Your task to perform on an android device: turn on location history Image 0: 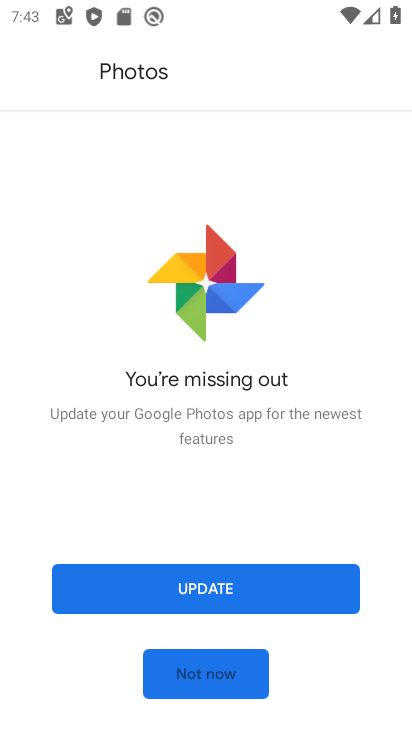
Step 0: press home button
Your task to perform on an android device: turn on location history Image 1: 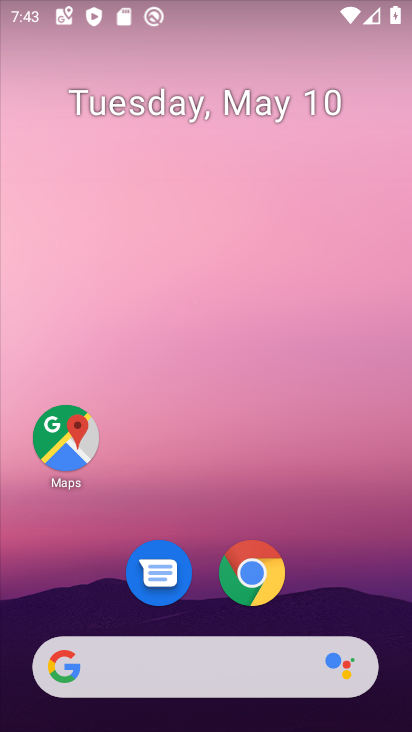
Step 1: drag from (373, 575) to (331, 44)
Your task to perform on an android device: turn on location history Image 2: 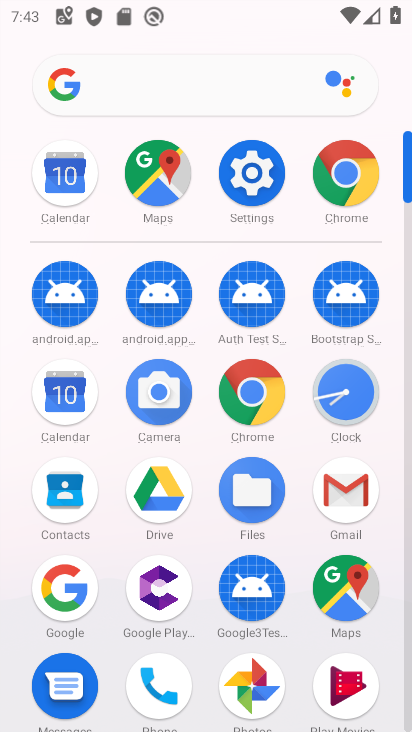
Step 2: click (247, 175)
Your task to perform on an android device: turn on location history Image 3: 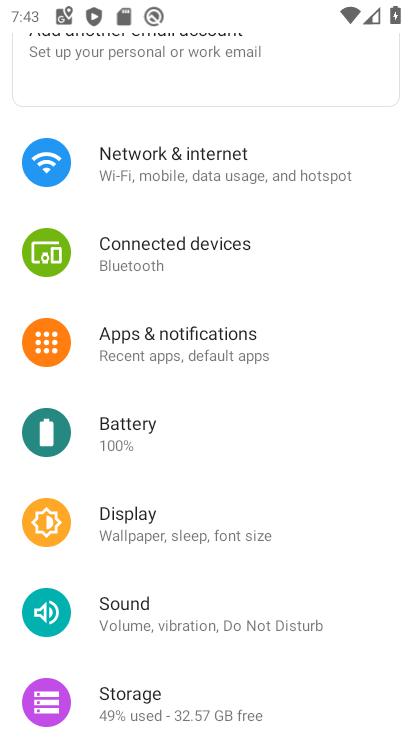
Step 3: drag from (237, 578) to (281, 239)
Your task to perform on an android device: turn on location history Image 4: 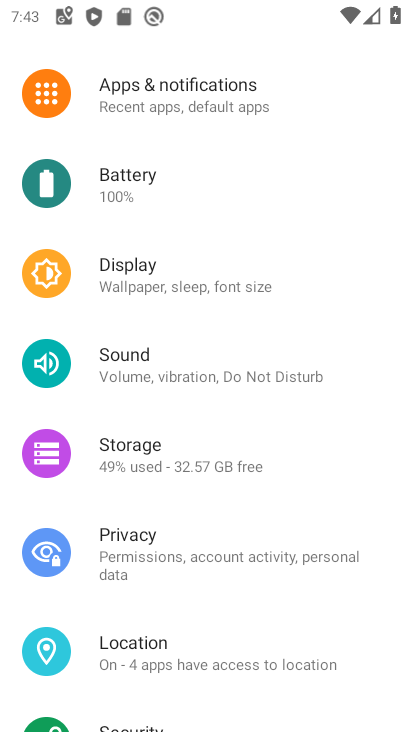
Step 4: click (207, 659)
Your task to perform on an android device: turn on location history Image 5: 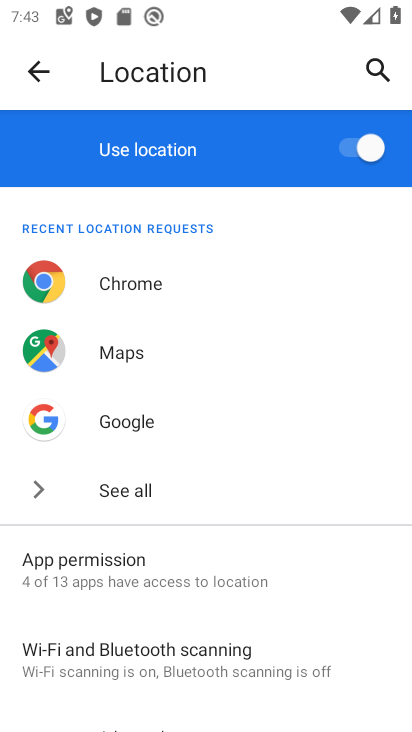
Step 5: drag from (299, 590) to (284, 367)
Your task to perform on an android device: turn on location history Image 6: 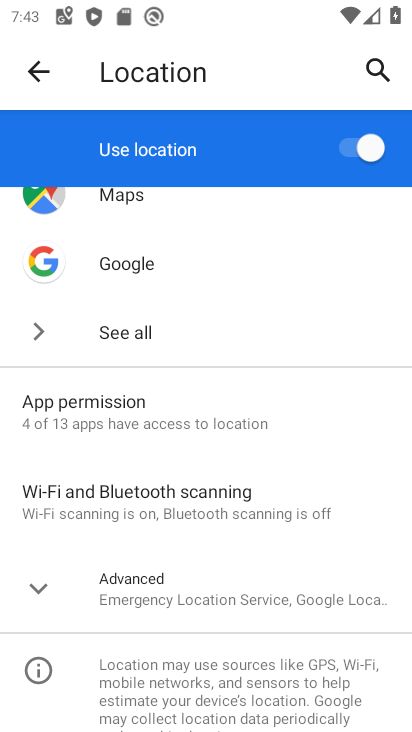
Step 6: click (210, 604)
Your task to perform on an android device: turn on location history Image 7: 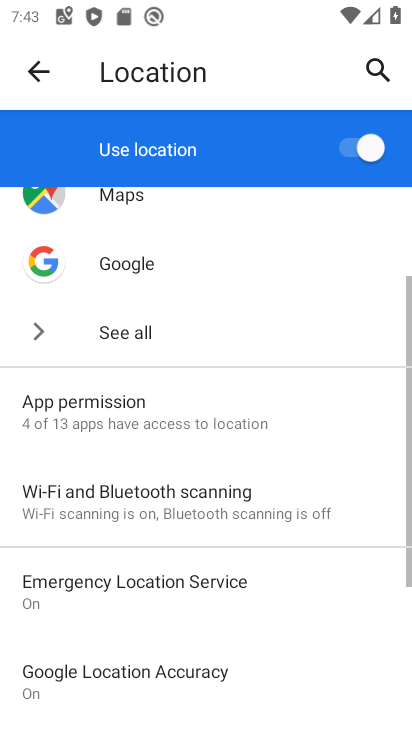
Step 7: drag from (298, 628) to (308, 332)
Your task to perform on an android device: turn on location history Image 8: 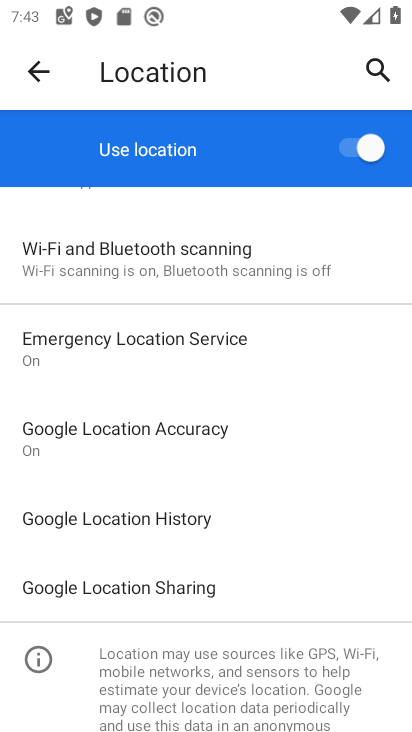
Step 8: click (179, 529)
Your task to perform on an android device: turn on location history Image 9: 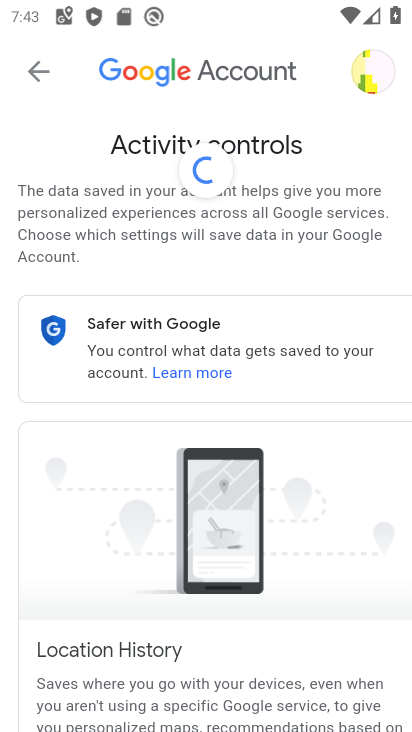
Step 9: drag from (279, 650) to (292, 269)
Your task to perform on an android device: turn on location history Image 10: 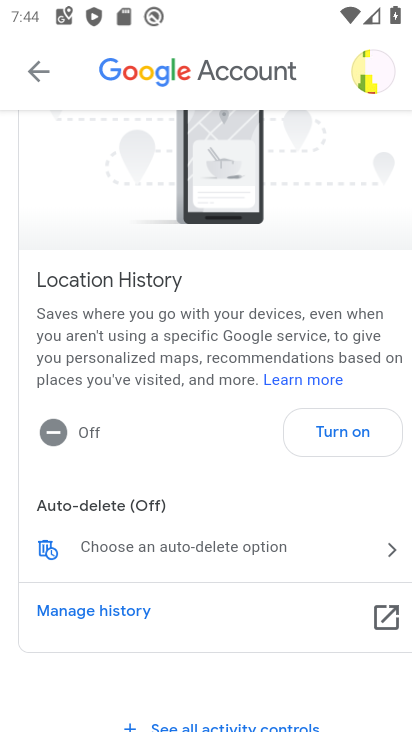
Step 10: drag from (225, 626) to (227, 357)
Your task to perform on an android device: turn on location history Image 11: 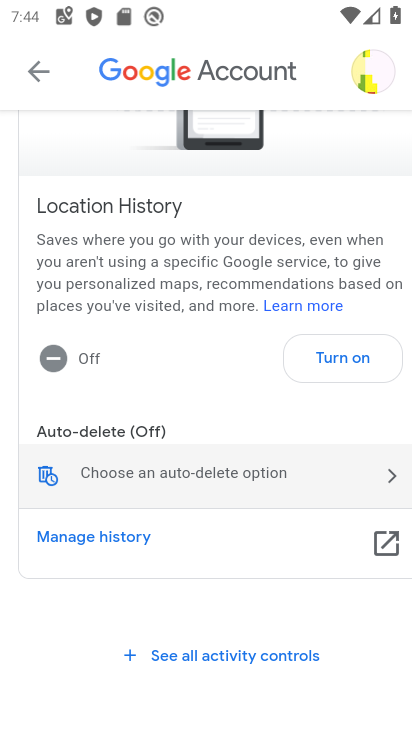
Step 11: click (331, 354)
Your task to perform on an android device: turn on location history Image 12: 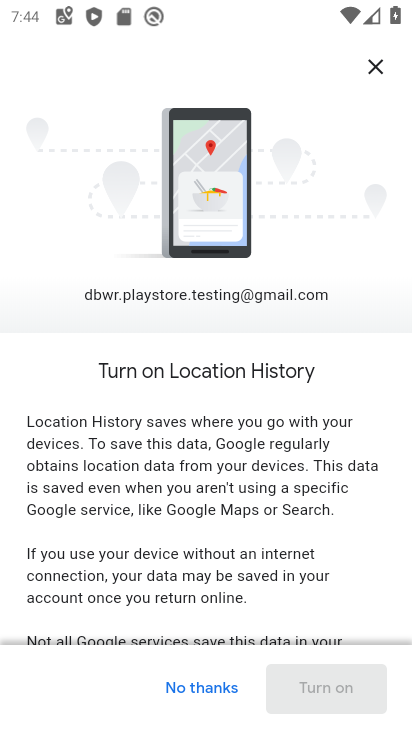
Step 12: drag from (240, 572) to (286, 244)
Your task to perform on an android device: turn on location history Image 13: 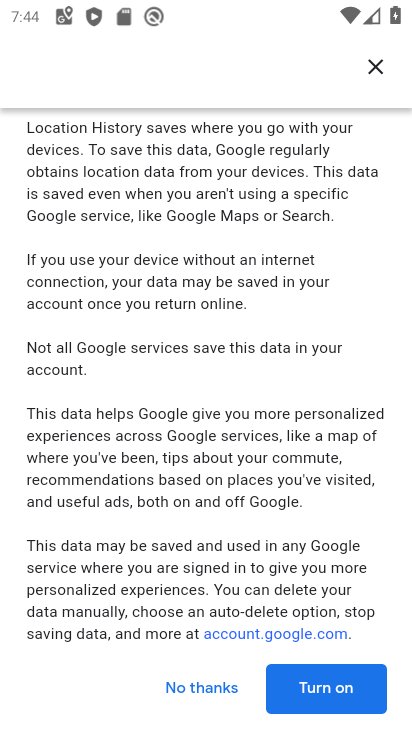
Step 13: drag from (254, 593) to (313, 379)
Your task to perform on an android device: turn on location history Image 14: 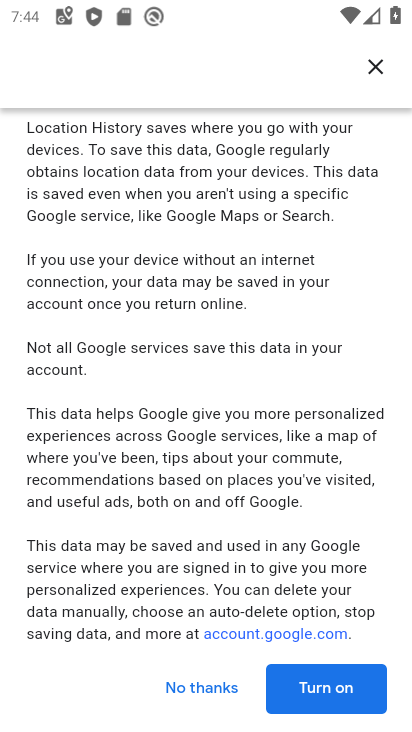
Step 14: click (351, 705)
Your task to perform on an android device: turn on location history Image 15: 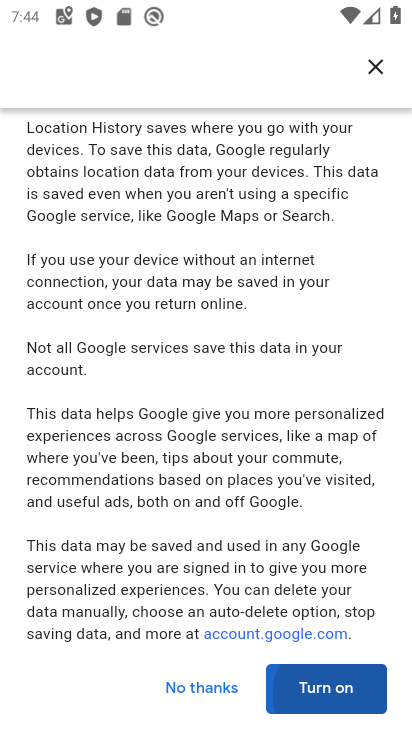
Step 15: click (348, 710)
Your task to perform on an android device: turn on location history Image 16: 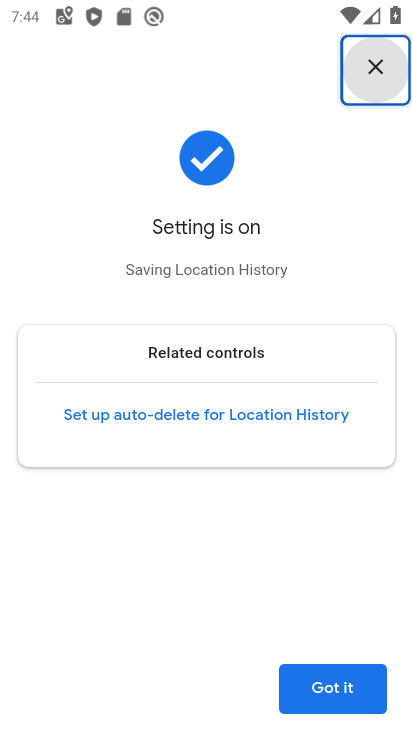
Step 16: task complete